Your task to perform on an android device: choose inbox layout in the gmail app Image 0: 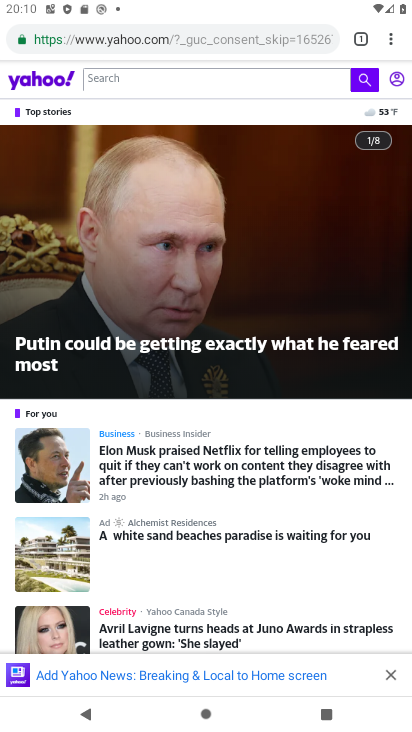
Step 0: press home button
Your task to perform on an android device: choose inbox layout in the gmail app Image 1: 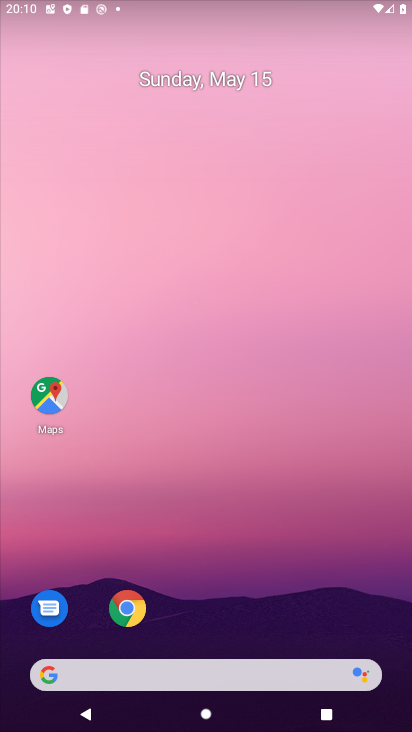
Step 1: drag from (248, 590) to (252, 147)
Your task to perform on an android device: choose inbox layout in the gmail app Image 2: 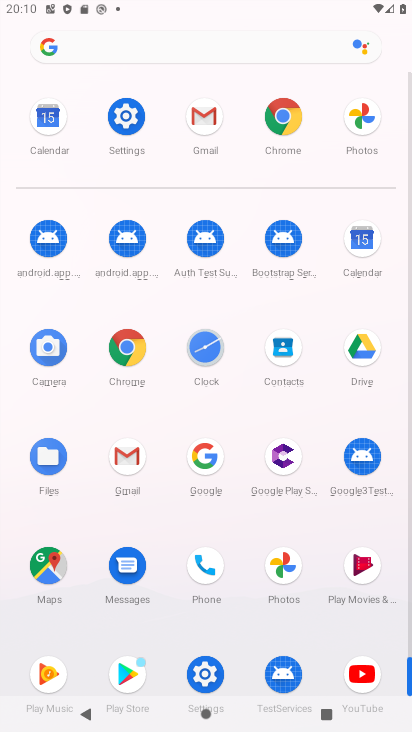
Step 2: click (205, 115)
Your task to perform on an android device: choose inbox layout in the gmail app Image 3: 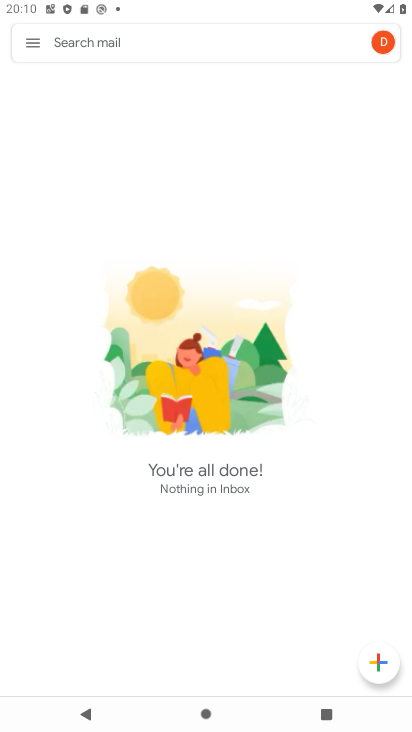
Step 3: click (35, 45)
Your task to perform on an android device: choose inbox layout in the gmail app Image 4: 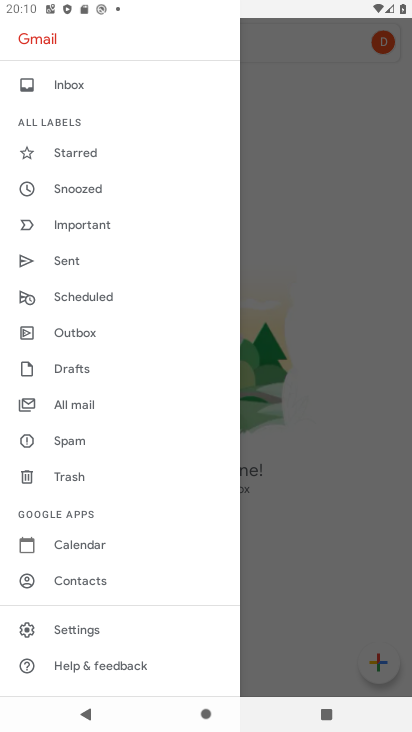
Step 4: click (76, 630)
Your task to perform on an android device: choose inbox layout in the gmail app Image 5: 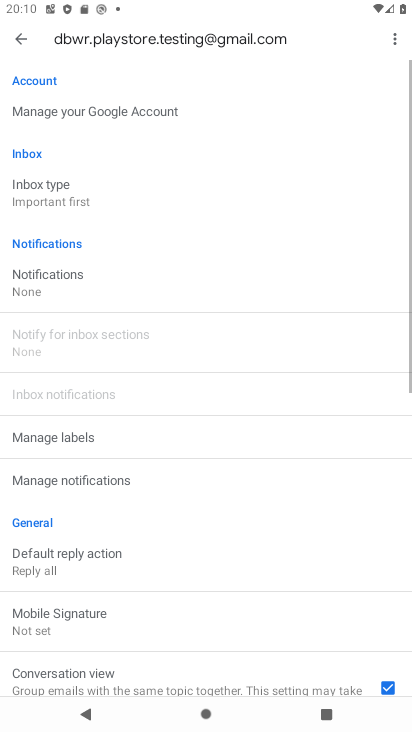
Step 5: click (59, 195)
Your task to perform on an android device: choose inbox layout in the gmail app Image 6: 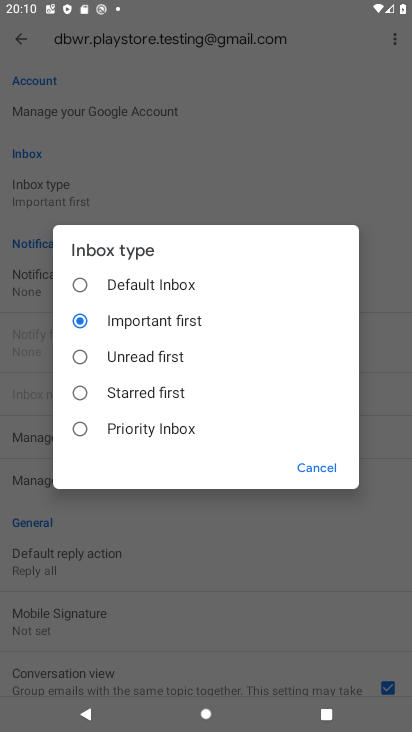
Step 6: click (80, 287)
Your task to perform on an android device: choose inbox layout in the gmail app Image 7: 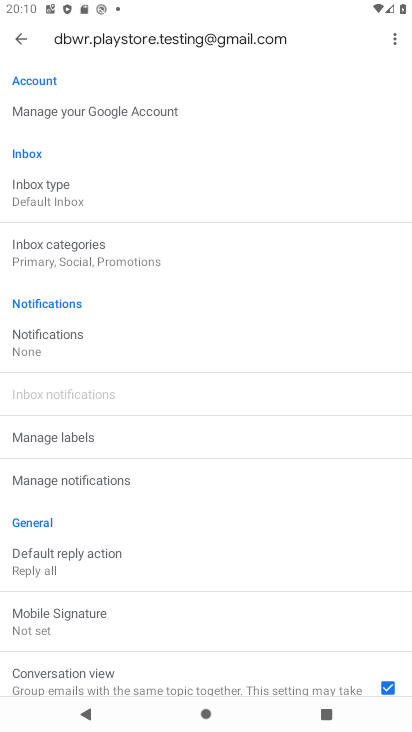
Step 7: task complete